Your task to perform on an android device: turn notification dots on Image 0: 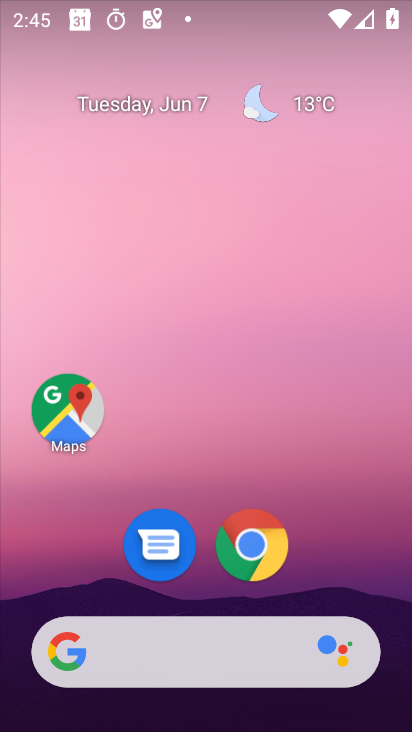
Step 0: drag from (338, 244) to (268, 5)
Your task to perform on an android device: turn notification dots on Image 1: 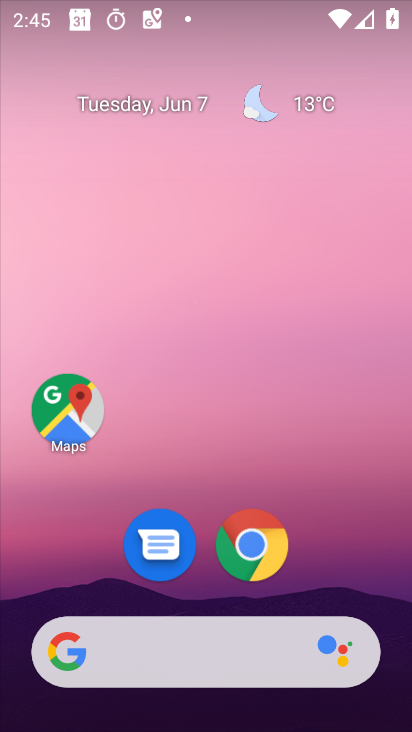
Step 1: drag from (366, 582) to (258, 6)
Your task to perform on an android device: turn notification dots on Image 2: 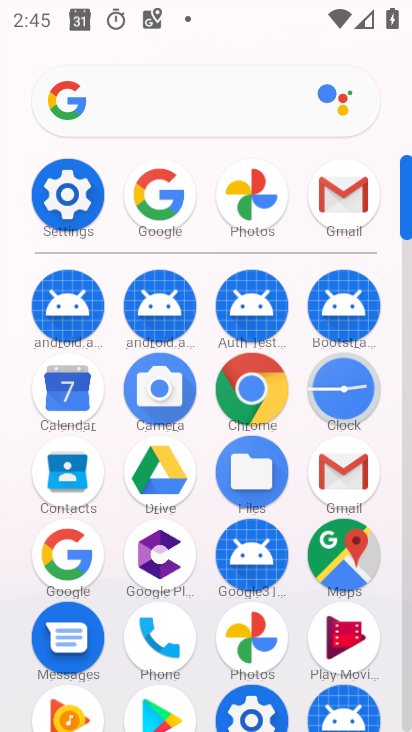
Step 2: click (46, 190)
Your task to perform on an android device: turn notification dots on Image 3: 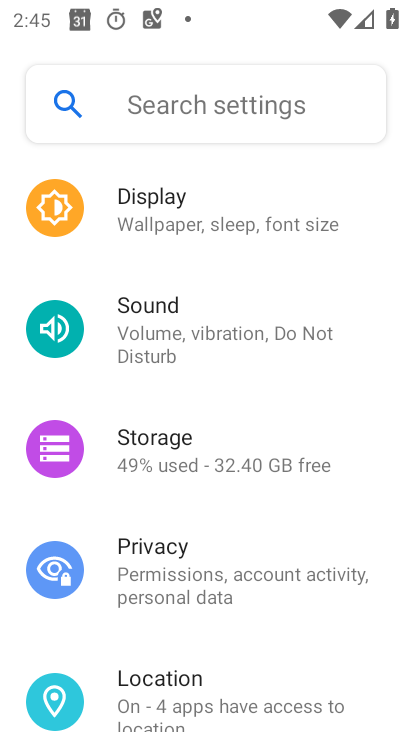
Step 3: drag from (283, 235) to (245, 729)
Your task to perform on an android device: turn notification dots on Image 4: 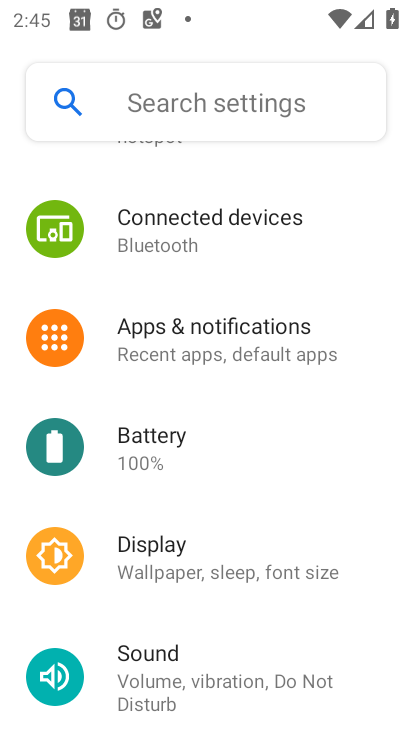
Step 4: click (210, 345)
Your task to perform on an android device: turn notification dots on Image 5: 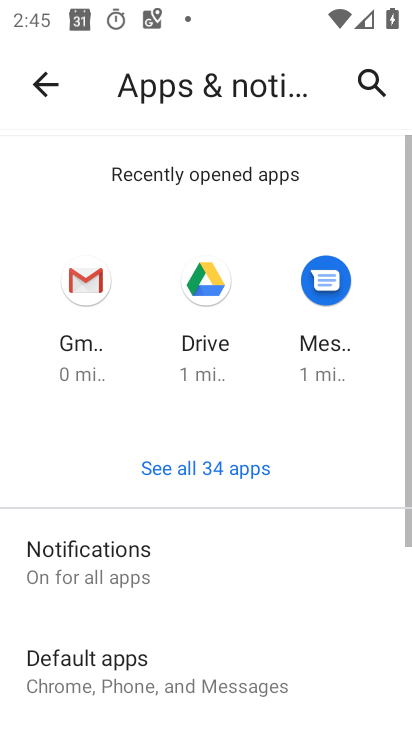
Step 5: click (163, 568)
Your task to perform on an android device: turn notification dots on Image 6: 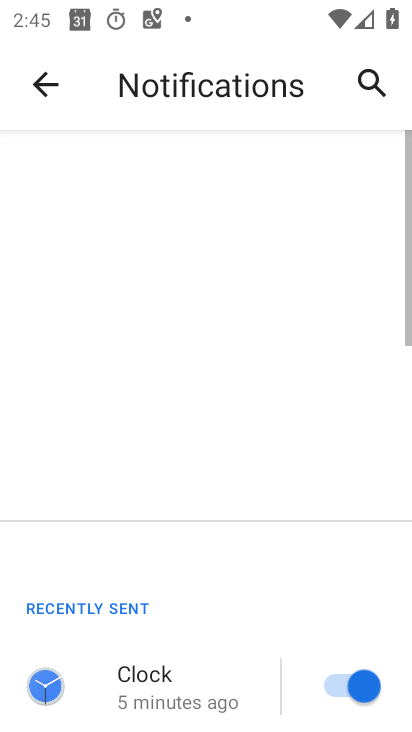
Step 6: drag from (254, 639) to (246, 1)
Your task to perform on an android device: turn notification dots on Image 7: 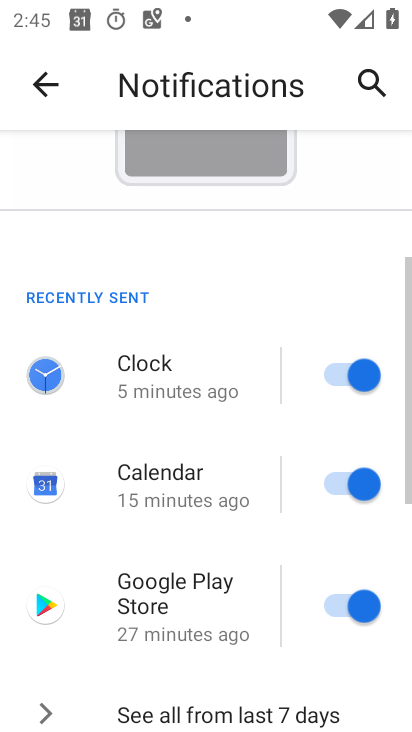
Step 7: drag from (218, 575) to (263, 6)
Your task to perform on an android device: turn notification dots on Image 8: 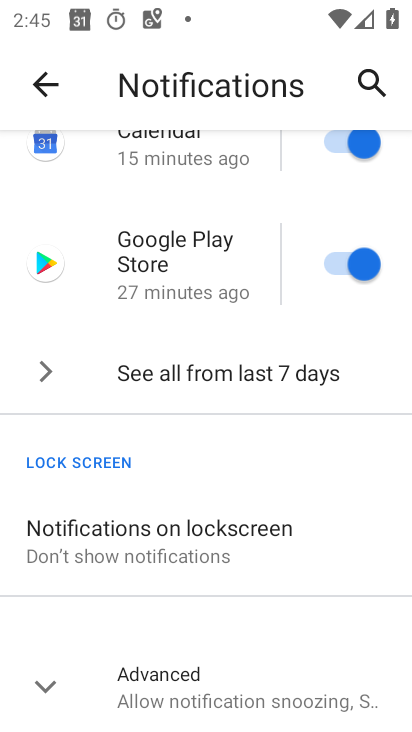
Step 8: click (195, 681)
Your task to perform on an android device: turn notification dots on Image 9: 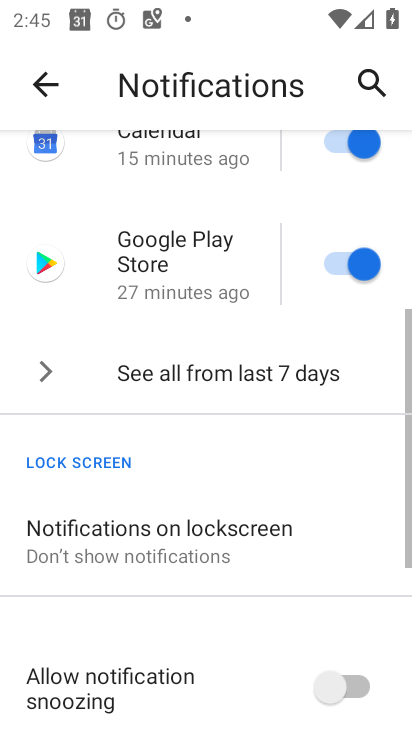
Step 9: drag from (244, 640) to (284, 52)
Your task to perform on an android device: turn notification dots on Image 10: 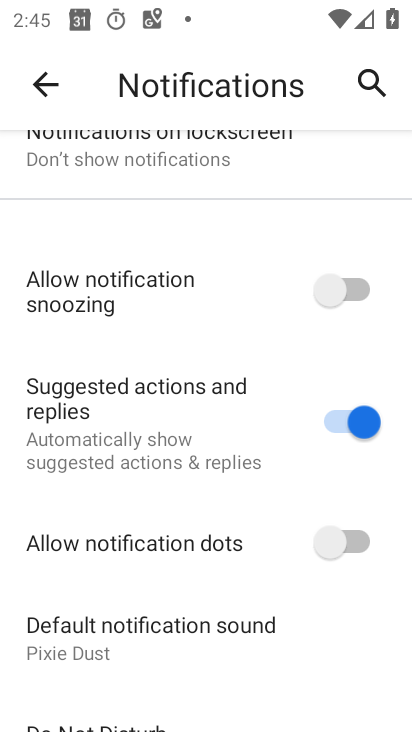
Step 10: click (302, 552)
Your task to perform on an android device: turn notification dots on Image 11: 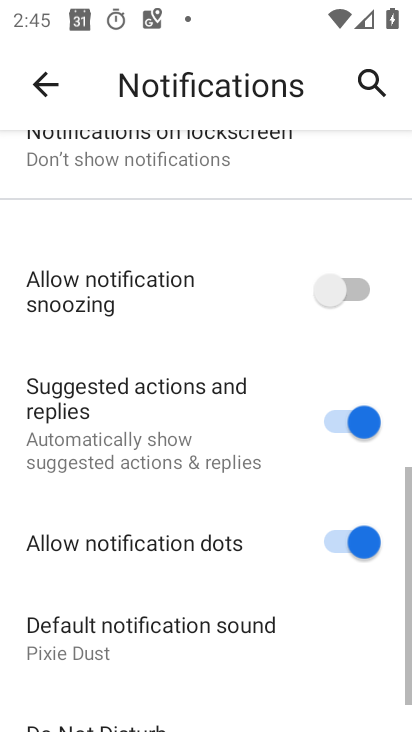
Step 11: task complete